Your task to perform on an android device: turn on the 12-hour format for clock Image 0: 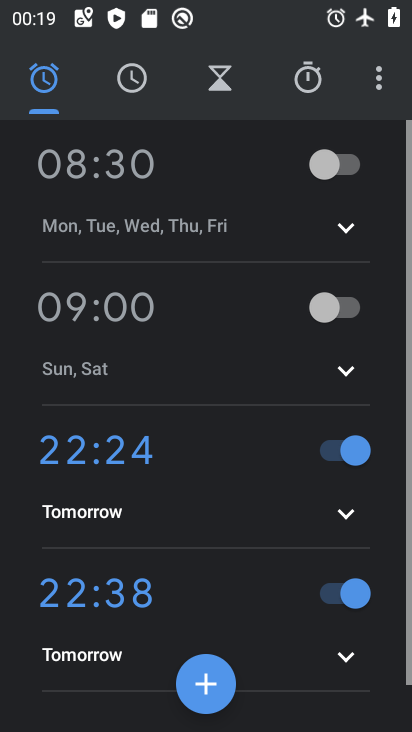
Step 0: drag from (358, 444) to (346, 0)
Your task to perform on an android device: turn on the 12-hour format for clock Image 1: 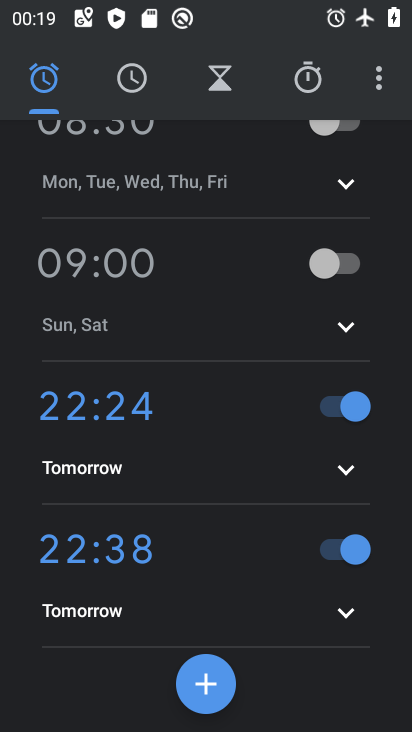
Step 1: press home button
Your task to perform on an android device: turn on the 12-hour format for clock Image 2: 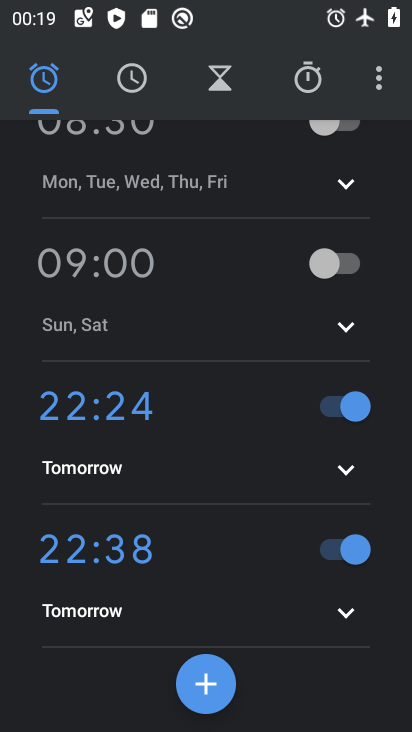
Step 2: click (365, 428)
Your task to perform on an android device: turn on the 12-hour format for clock Image 3: 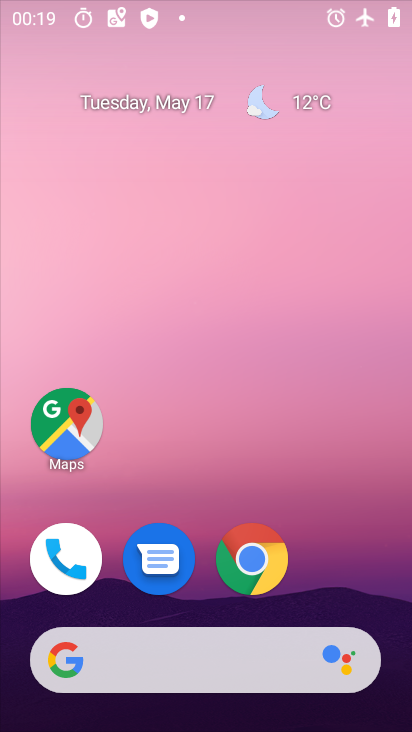
Step 3: drag from (300, 450) to (326, 162)
Your task to perform on an android device: turn on the 12-hour format for clock Image 4: 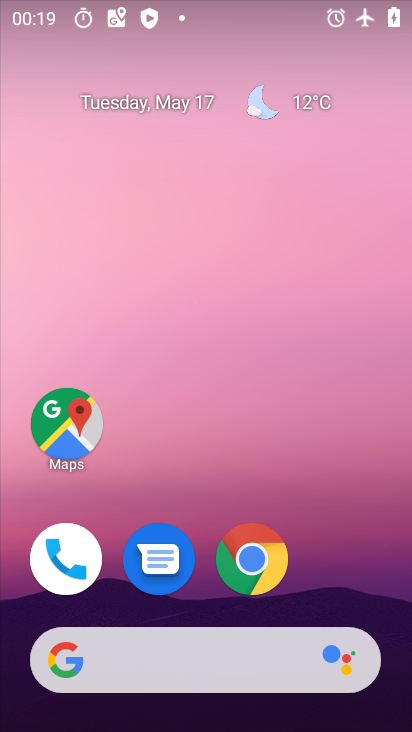
Step 4: drag from (319, 513) to (323, 104)
Your task to perform on an android device: turn on the 12-hour format for clock Image 5: 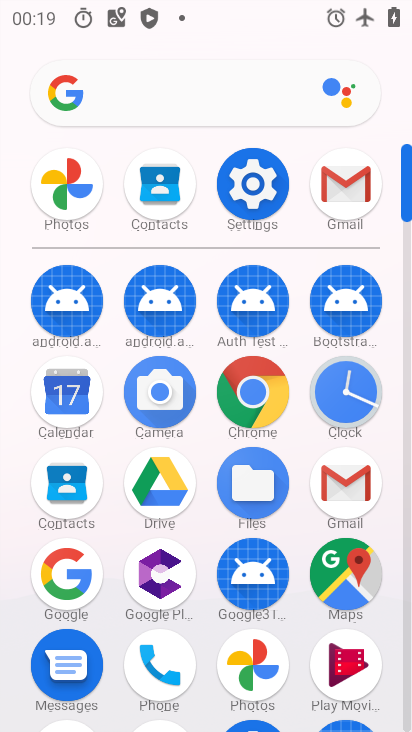
Step 5: click (261, 192)
Your task to perform on an android device: turn on the 12-hour format for clock Image 6: 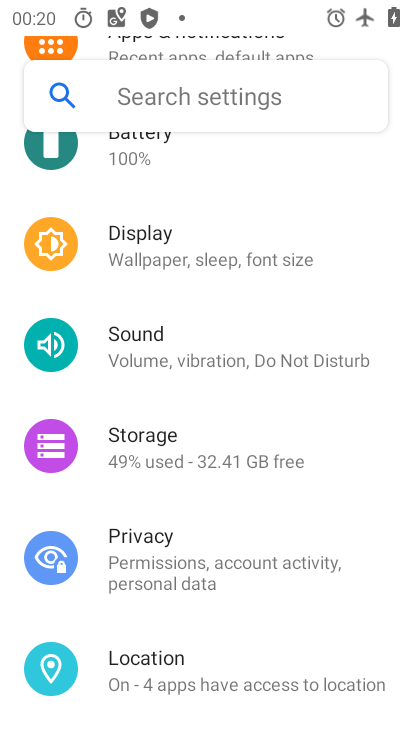
Step 6: press home button
Your task to perform on an android device: turn on the 12-hour format for clock Image 7: 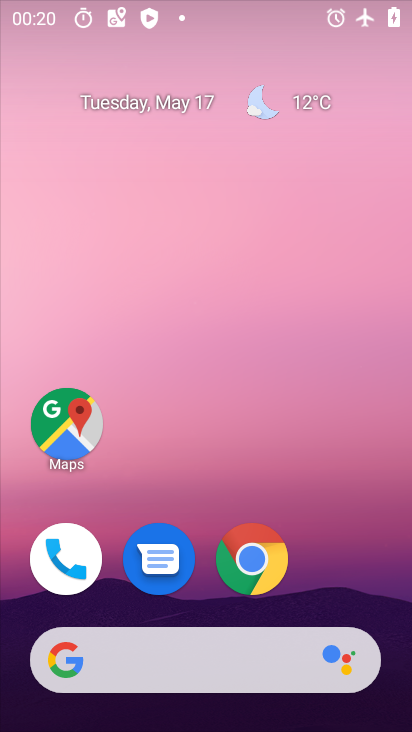
Step 7: drag from (342, 507) to (356, 133)
Your task to perform on an android device: turn on the 12-hour format for clock Image 8: 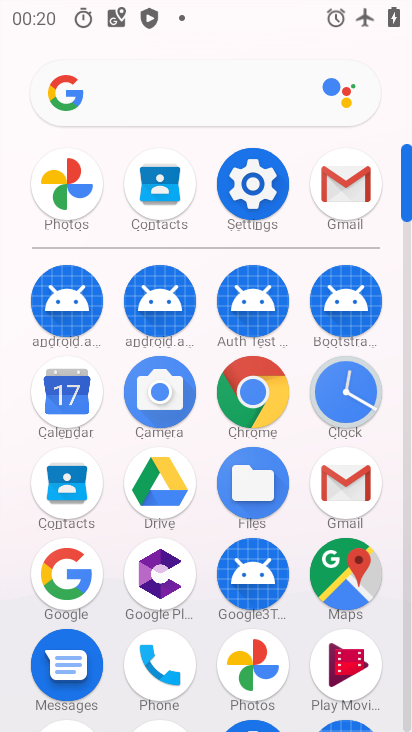
Step 8: click (340, 402)
Your task to perform on an android device: turn on the 12-hour format for clock Image 9: 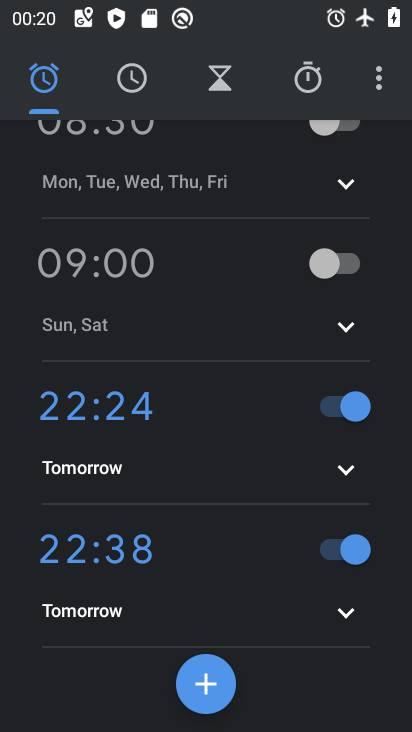
Step 9: click (384, 76)
Your task to perform on an android device: turn on the 12-hour format for clock Image 10: 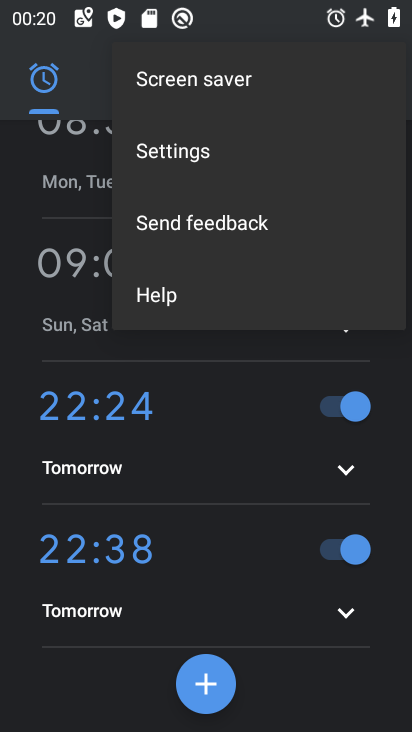
Step 10: click (174, 162)
Your task to perform on an android device: turn on the 12-hour format for clock Image 11: 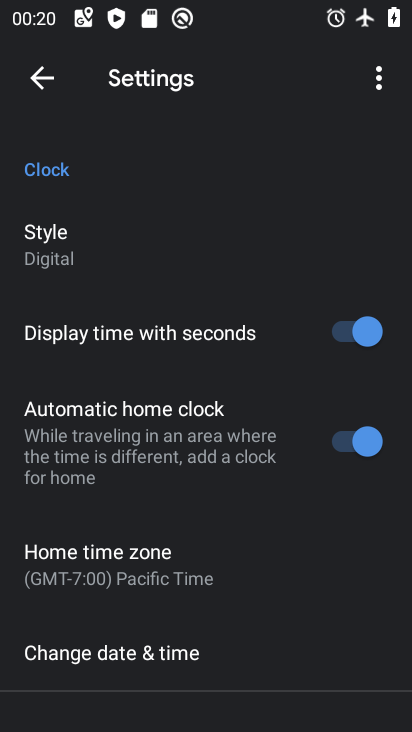
Step 11: click (190, 643)
Your task to perform on an android device: turn on the 12-hour format for clock Image 12: 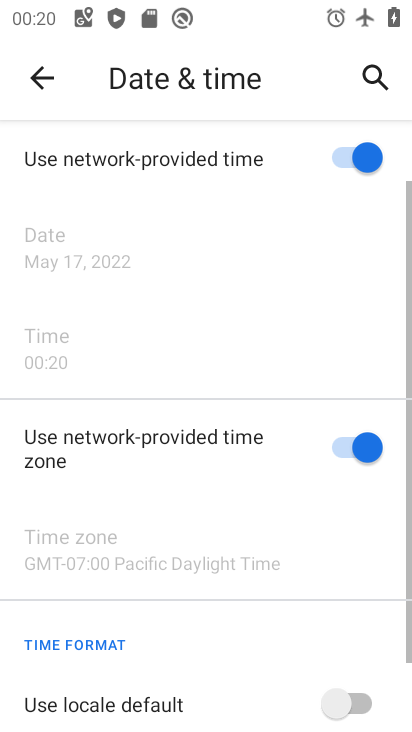
Step 12: drag from (246, 619) to (302, 103)
Your task to perform on an android device: turn on the 12-hour format for clock Image 13: 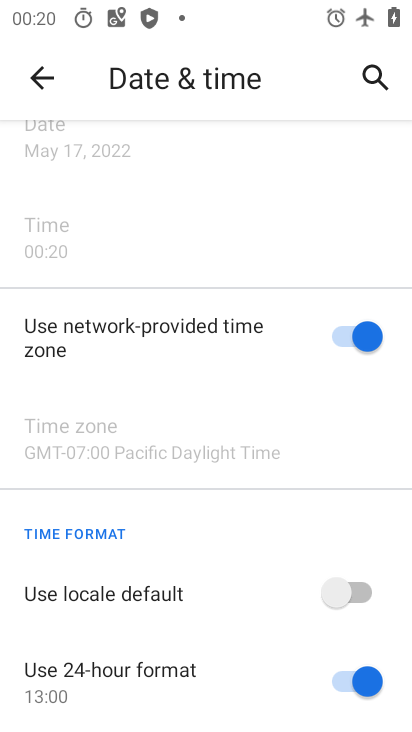
Step 13: drag from (208, 567) to (248, 228)
Your task to perform on an android device: turn on the 12-hour format for clock Image 14: 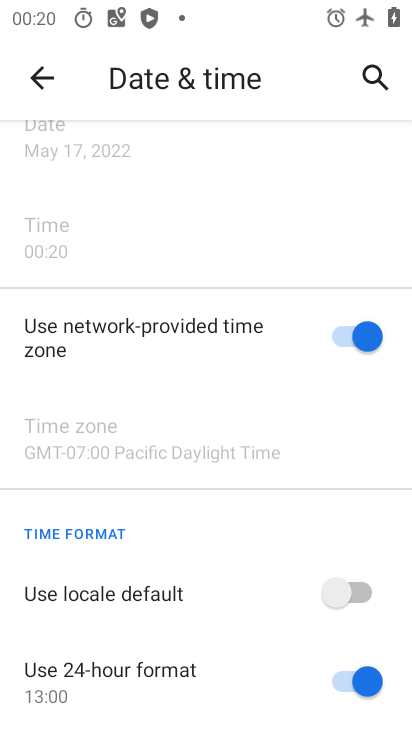
Step 14: click (334, 611)
Your task to perform on an android device: turn on the 12-hour format for clock Image 15: 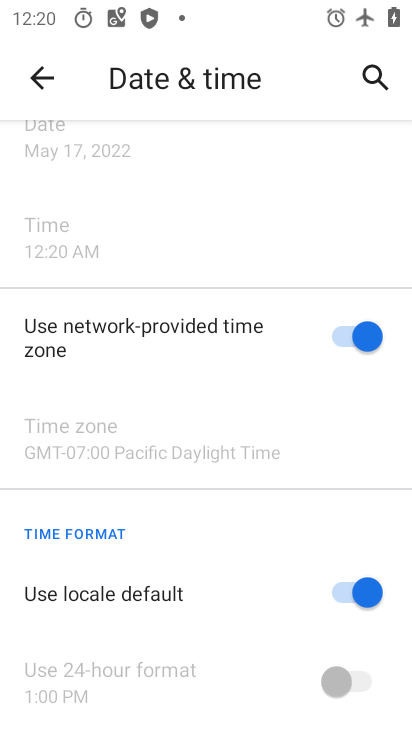
Step 15: task complete